Your task to perform on an android device: toggle location history Image 0: 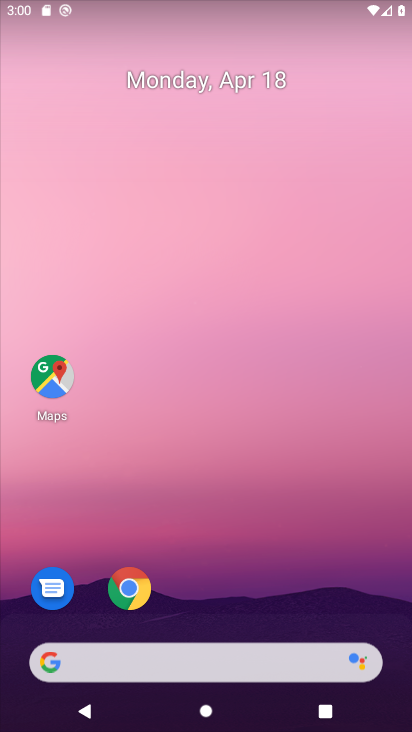
Step 0: drag from (211, 637) to (355, 37)
Your task to perform on an android device: toggle location history Image 1: 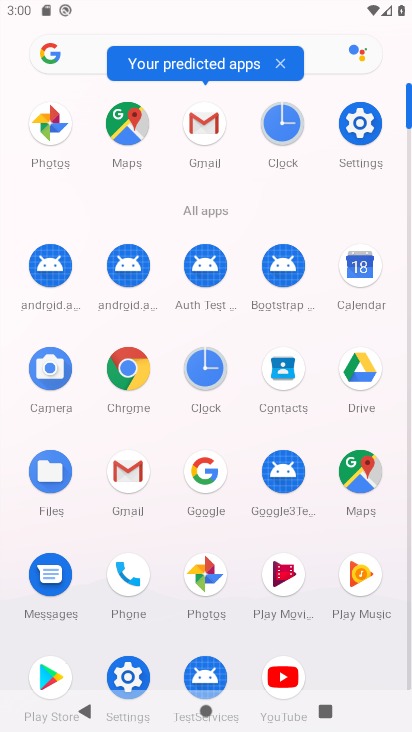
Step 1: click (128, 677)
Your task to perform on an android device: toggle location history Image 2: 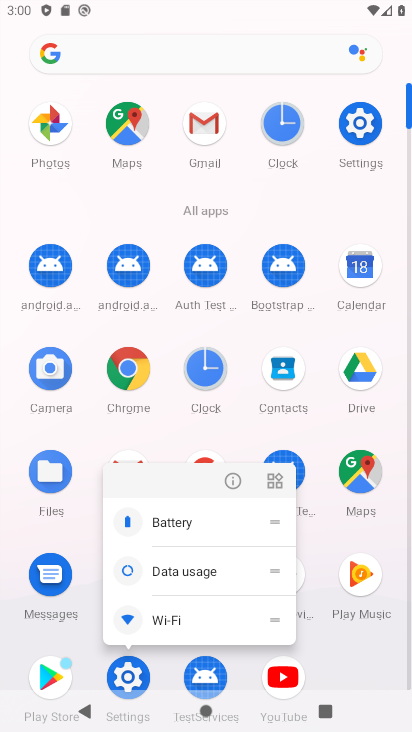
Step 2: click (128, 694)
Your task to perform on an android device: toggle location history Image 3: 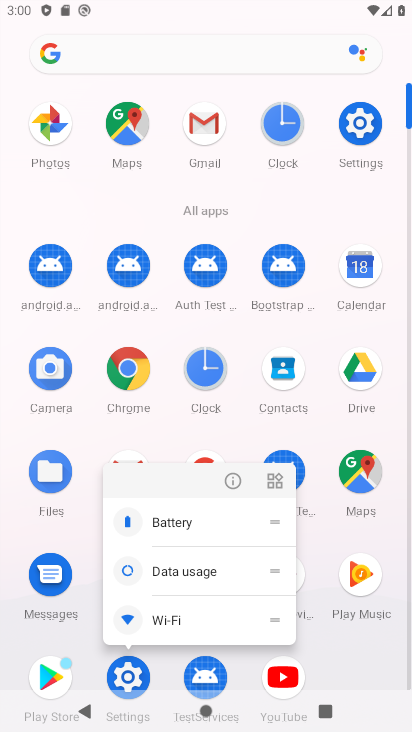
Step 3: click (134, 681)
Your task to perform on an android device: toggle location history Image 4: 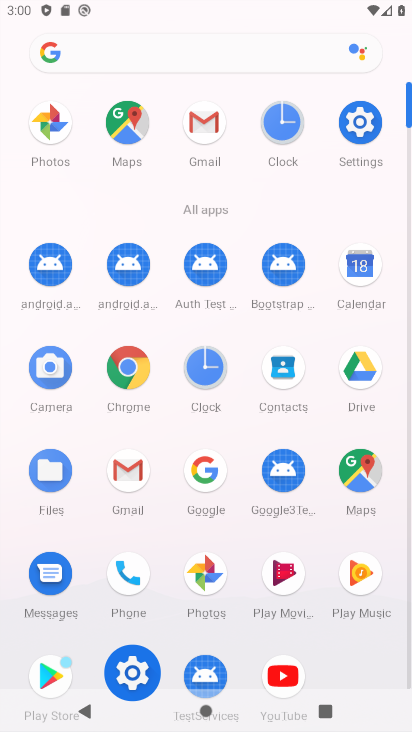
Step 4: click (117, 679)
Your task to perform on an android device: toggle location history Image 5: 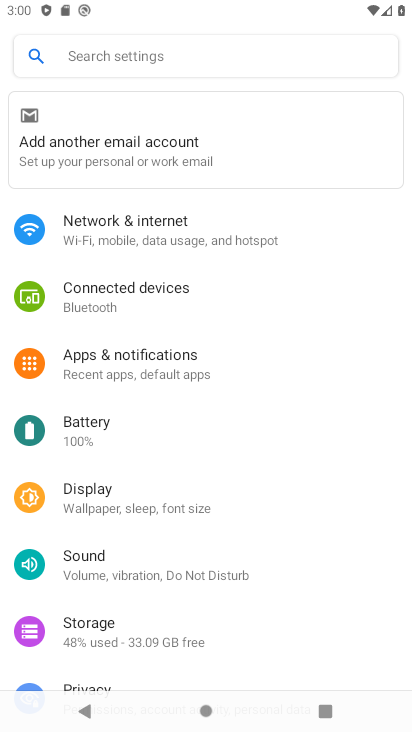
Step 5: drag from (139, 561) to (248, 174)
Your task to perform on an android device: toggle location history Image 6: 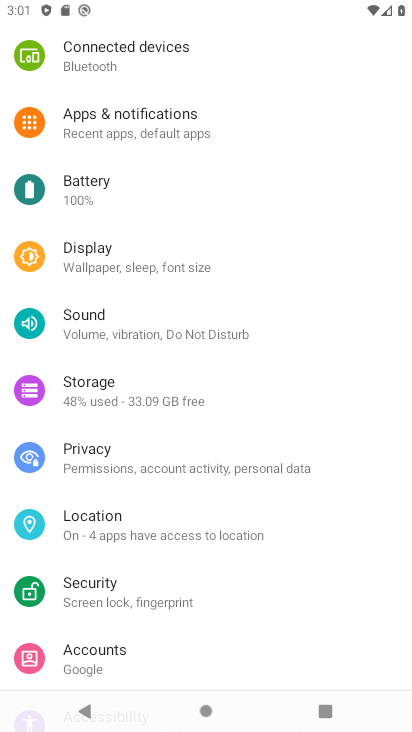
Step 6: click (144, 518)
Your task to perform on an android device: toggle location history Image 7: 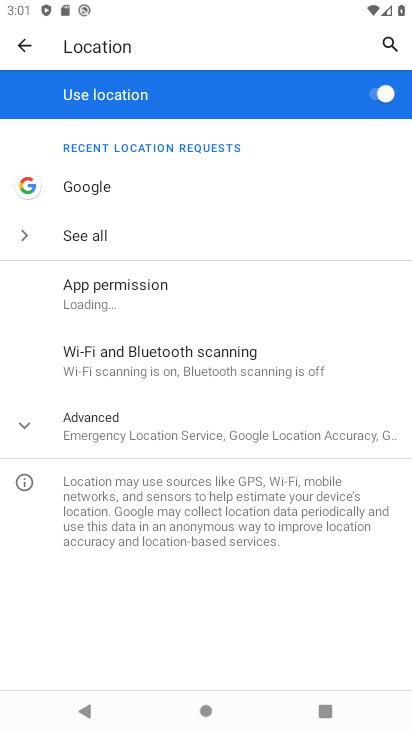
Step 7: click (85, 421)
Your task to perform on an android device: toggle location history Image 8: 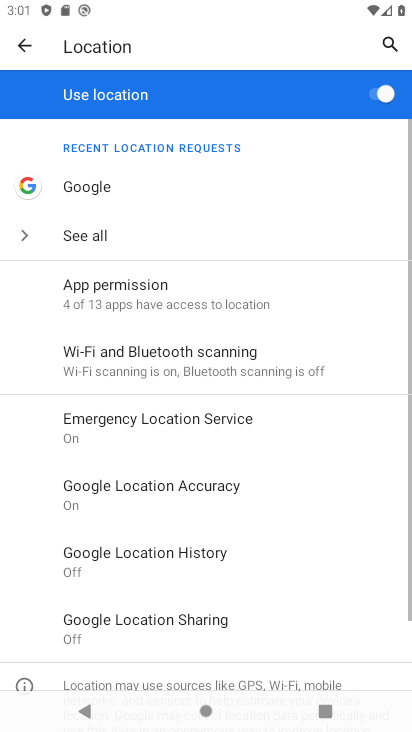
Step 8: click (155, 556)
Your task to perform on an android device: toggle location history Image 9: 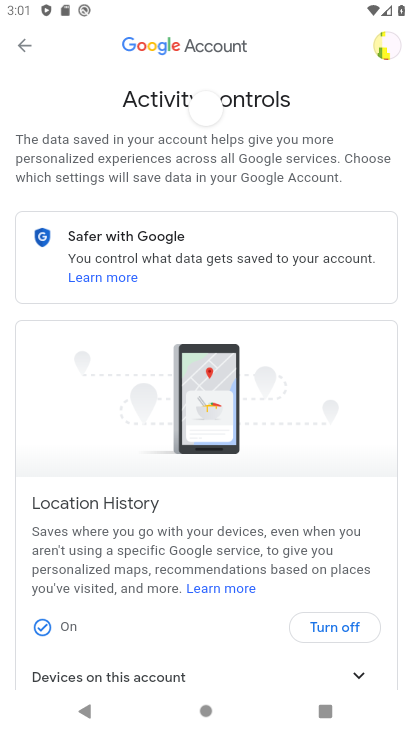
Step 9: click (338, 630)
Your task to perform on an android device: toggle location history Image 10: 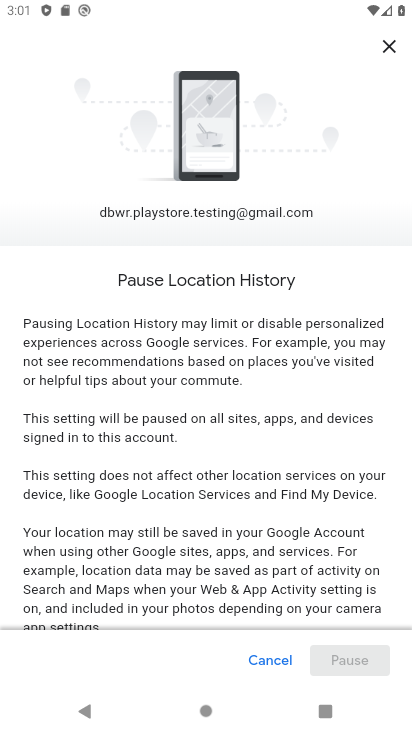
Step 10: drag from (331, 562) to (406, 99)
Your task to perform on an android device: toggle location history Image 11: 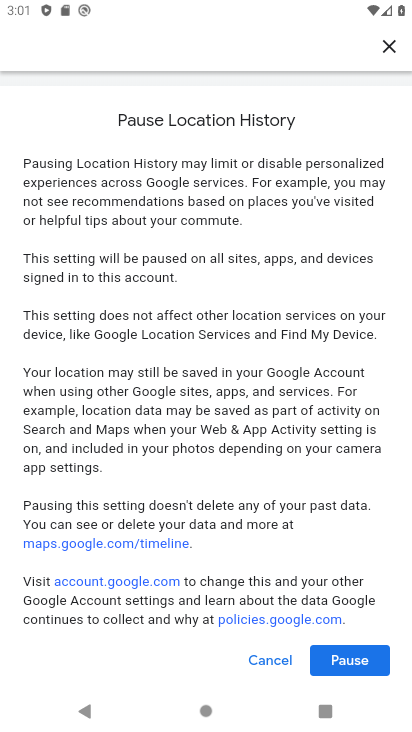
Step 11: click (349, 673)
Your task to perform on an android device: toggle location history Image 12: 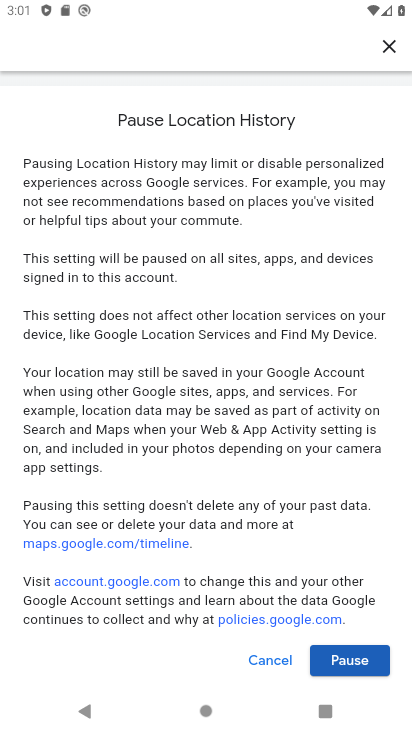
Step 12: click (353, 671)
Your task to perform on an android device: toggle location history Image 13: 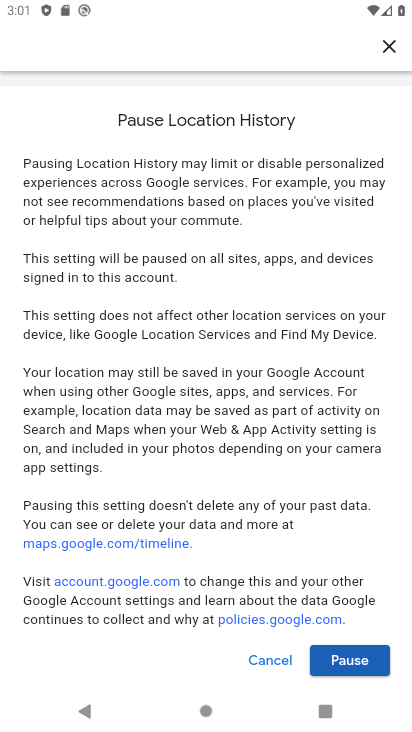
Step 13: click (385, 658)
Your task to perform on an android device: toggle location history Image 14: 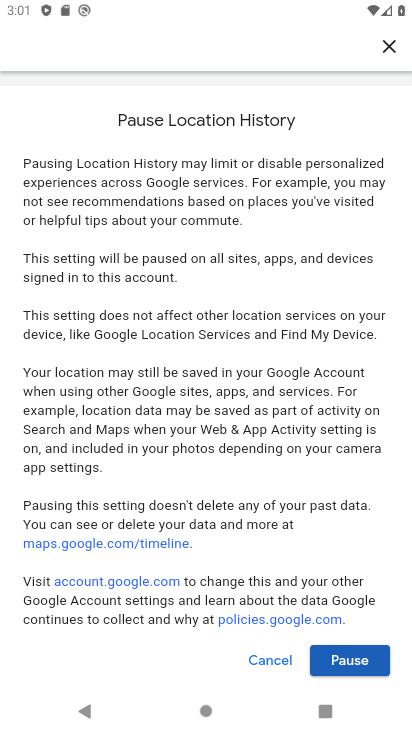
Step 14: click (343, 658)
Your task to perform on an android device: toggle location history Image 15: 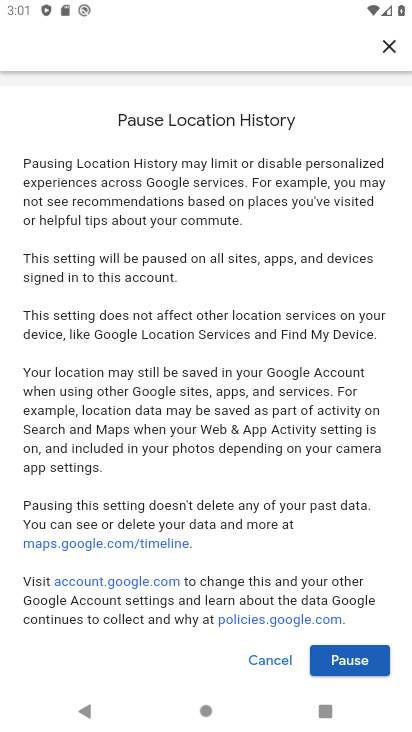
Step 15: click (357, 657)
Your task to perform on an android device: toggle location history Image 16: 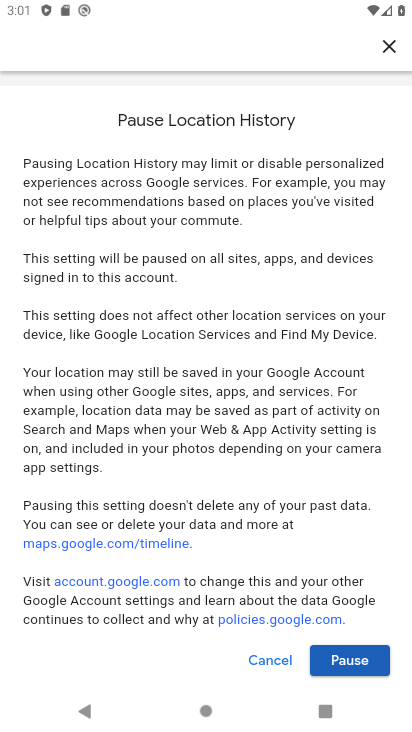
Step 16: drag from (291, 602) to (386, 102)
Your task to perform on an android device: toggle location history Image 17: 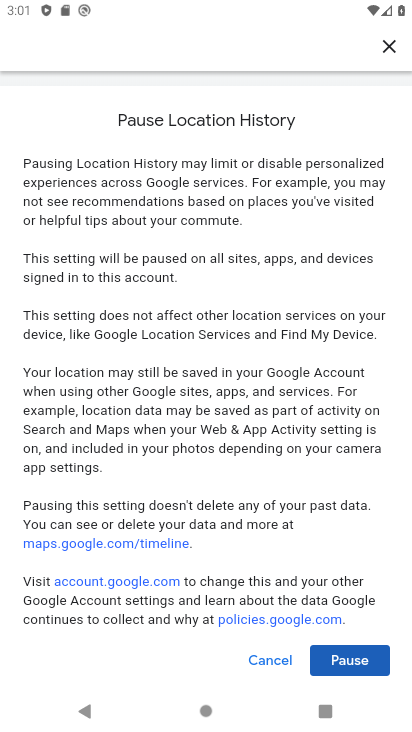
Step 17: click (359, 658)
Your task to perform on an android device: toggle location history Image 18: 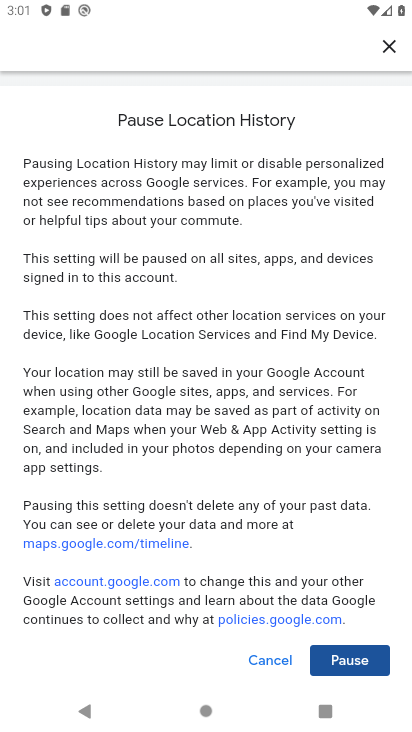
Step 18: click (373, 668)
Your task to perform on an android device: toggle location history Image 19: 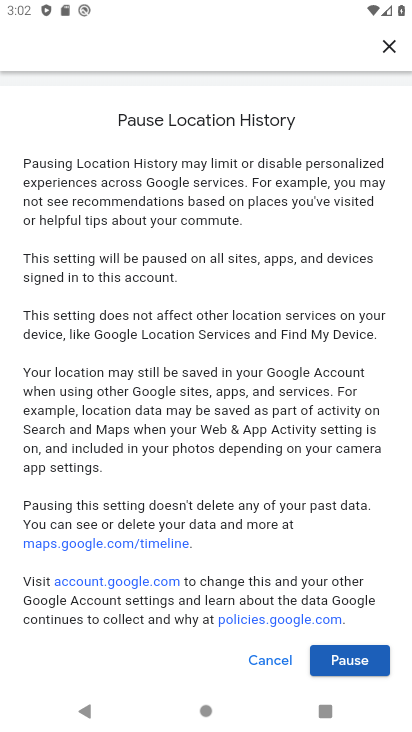
Step 19: click (389, 663)
Your task to perform on an android device: toggle location history Image 20: 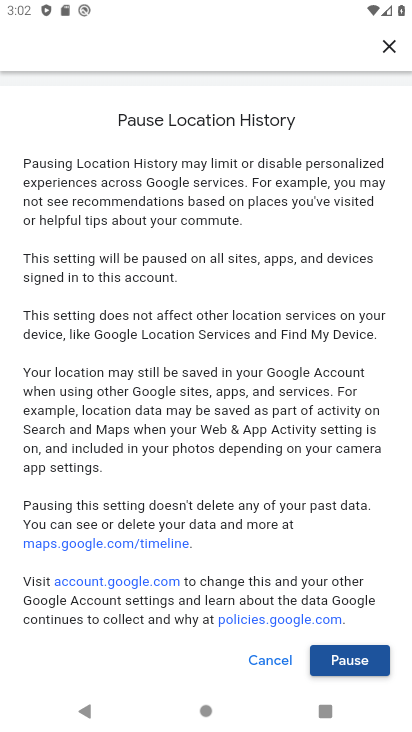
Step 20: click (372, 659)
Your task to perform on an android device: toggle location history Image 21: 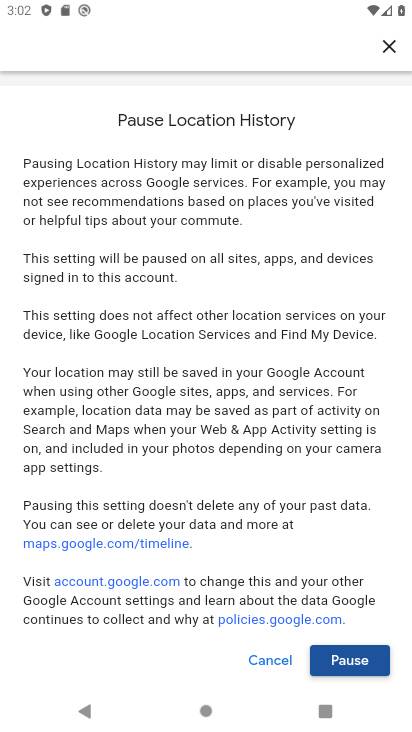
Step 21: click (382, 667)
Your task to perform on an android device: toggle location history Image 22: 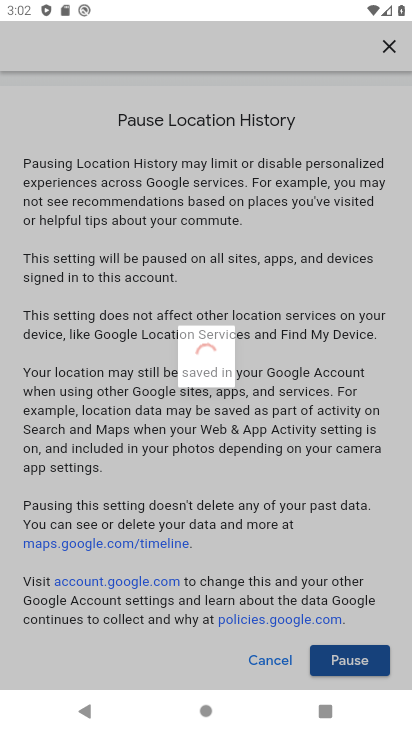
Step 22: click (345, 665)
Your task to perform on an android device: toggle location history Image 23: 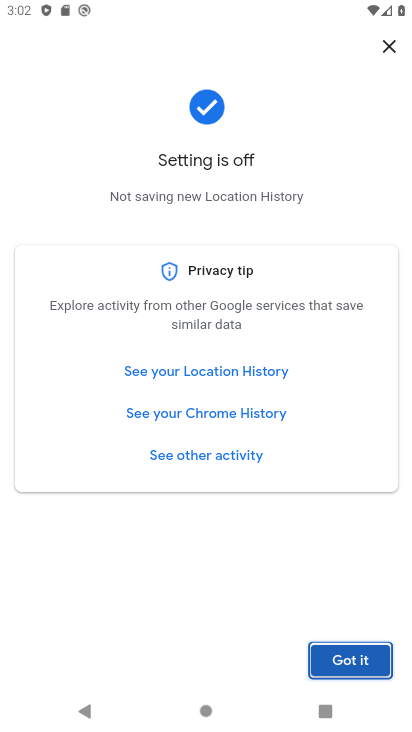
Step 23: click (356, 663)
Your task to perform on an android device: toggle location history Image 24: 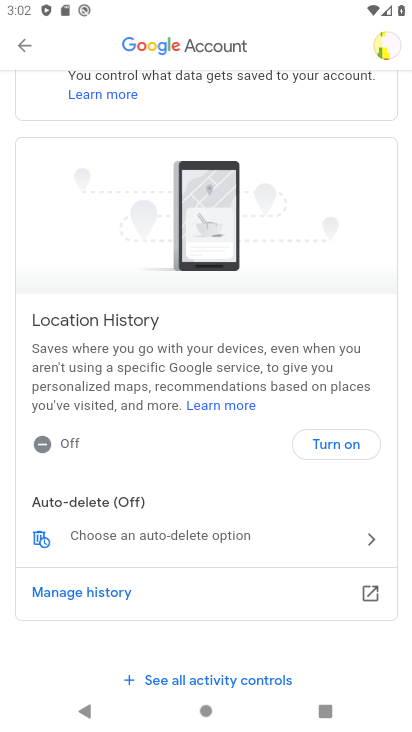
Step 24: task complete